Your task to perform on an android device: turn off airplane mode Image 0: 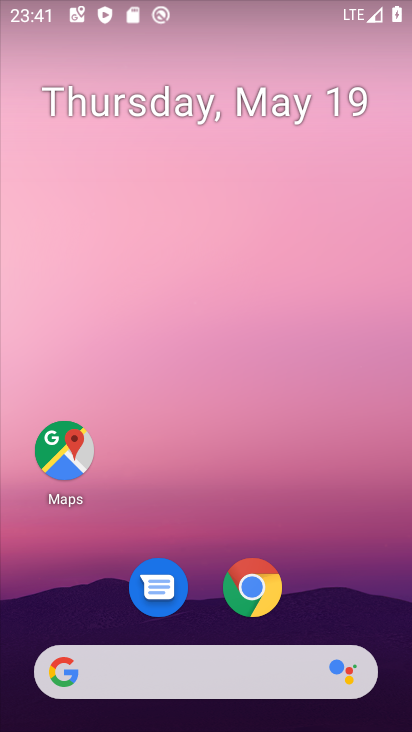
Step 0: drag from (283, 687) to (220, 120)
Your task to perform on an android device: turn off airplane mode Image 1: 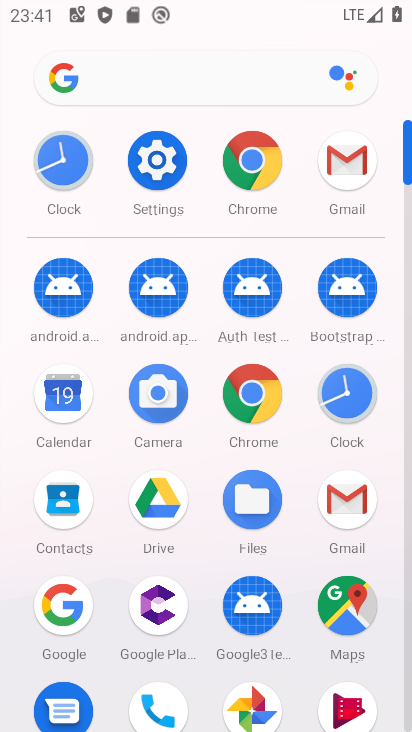
Step 1: click (155, 148)
Your task to perform on an android device: turn off airplane mode Image 2: 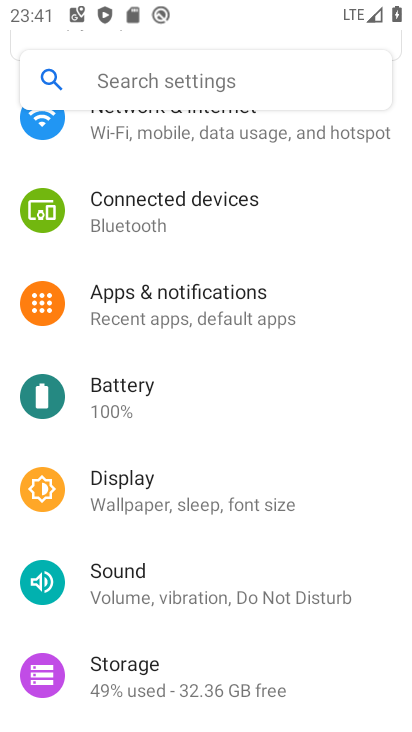
Step 2: click (185, 135)
Your task to perform on an android device: turn off airplane mode Image 3: 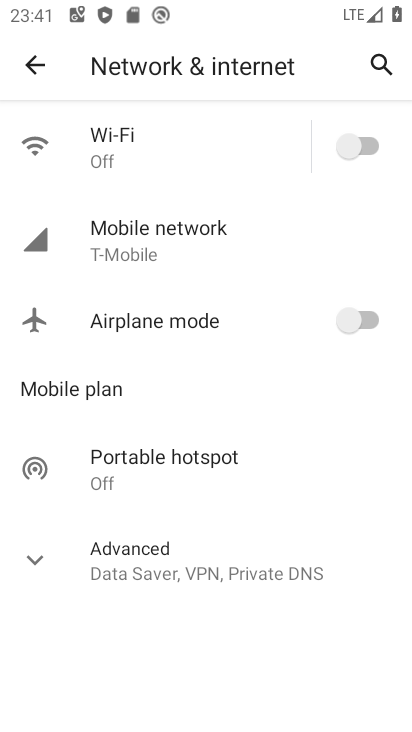
Step 3: click (361, 304)
Your task to perform on an android device: turn off airplane mode Image 4: 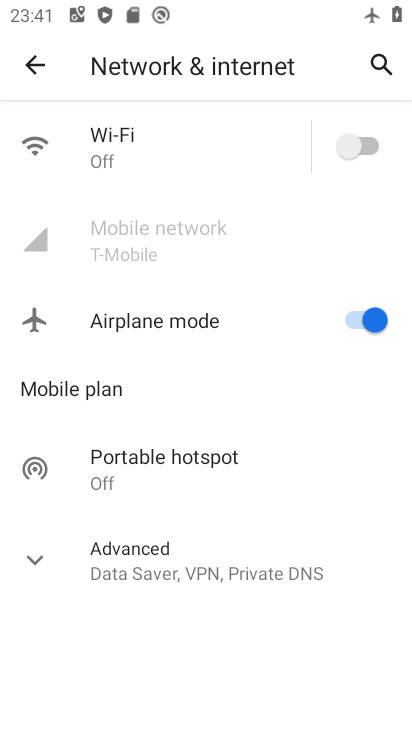
Step 4: click (349, 320)
Your task to perform on an android device: turn off airplane mode Image 5: 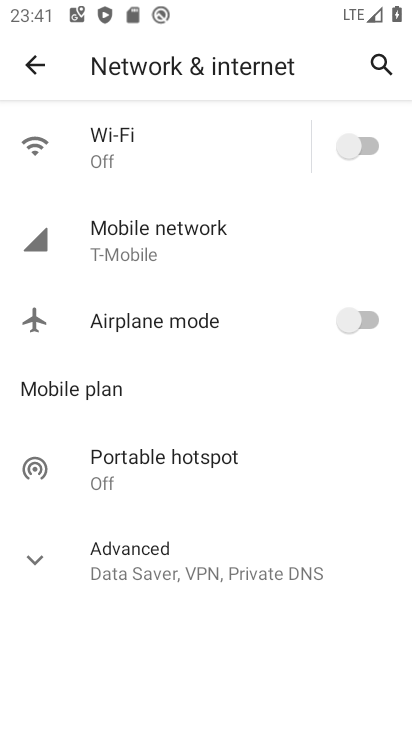
Step 5: task complete